Your task to perform on an android device: see sites visited before in the chrome app Image 0: 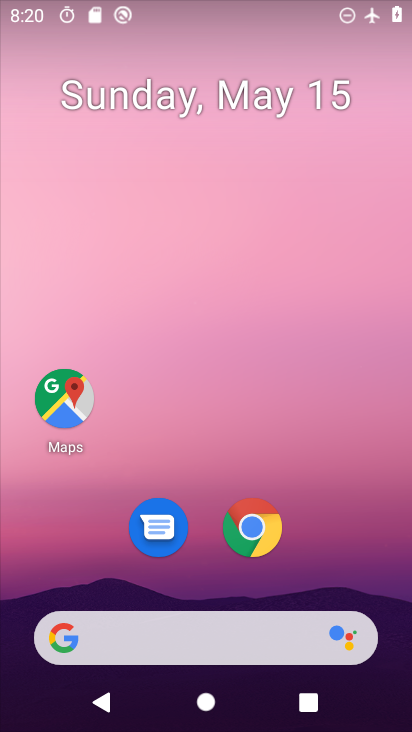
Step 0: click (267, 537)
Your task to perform on an android device: see sites visited before in the chrome app Image 1: 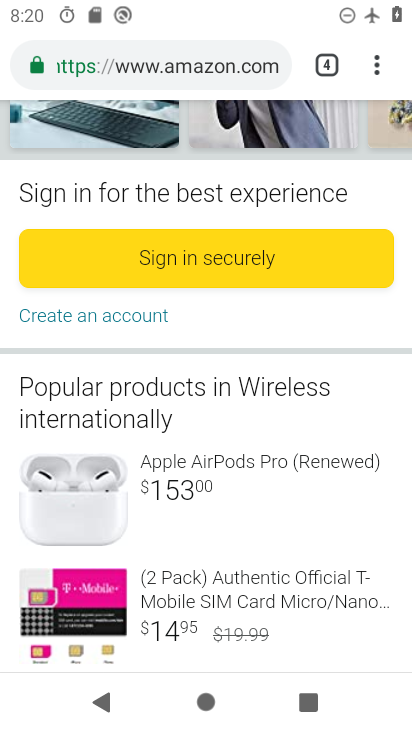
Step 1: task complete